Your task to perform on an android device: Go to Reddit.com Image 0: 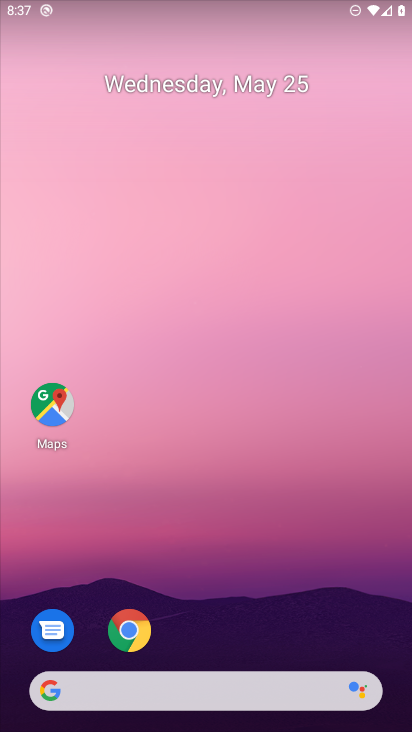
Step 0: drag from (168, 669) to (236, 419)
Your task to perform on an android device: Go to Reddit.com Image 1: 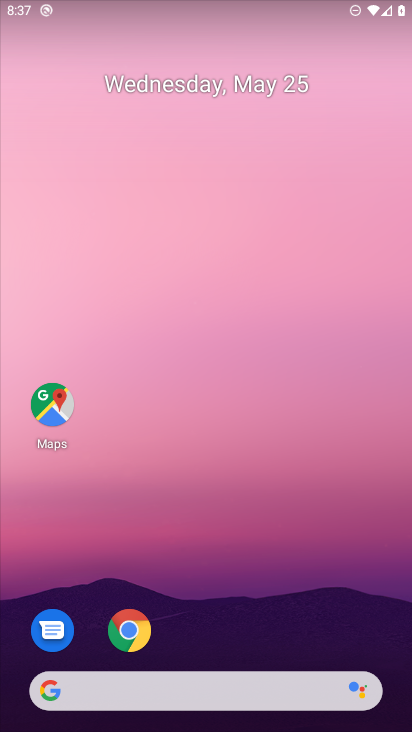
Step 1: drag from (225, 605) to (274, 415)
Your task to perform on an android device: Go to Reddit.com Image 2: 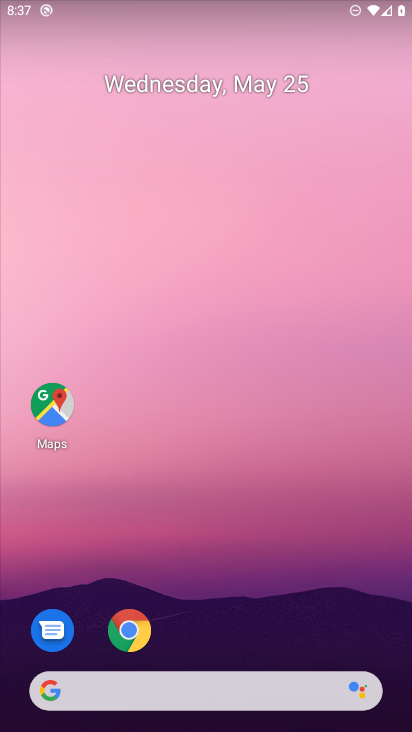
Step 2: drag from (260, 677) to (269, 139)
Your task to perform on an android device: Go to Reddit.com Image 3: 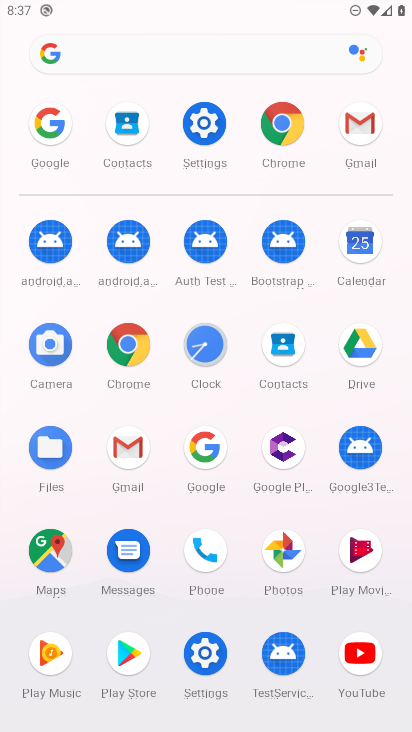
Step 3: click (209, 457)
Your task to perform on an android device: Go to Reddit.com Image 4: 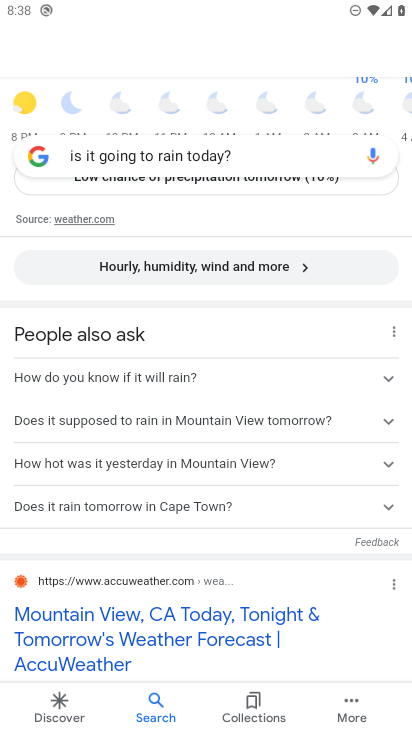
Step 4: click (249, 157)
Your task to perform on an android device: Go to Reddit.com Image 5: 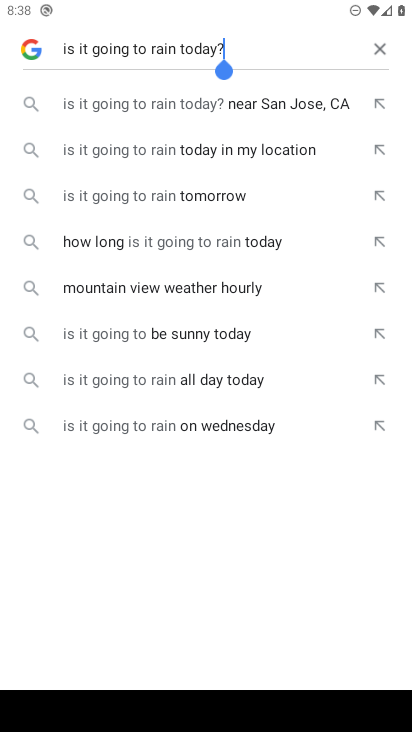
Step 5: click (365, 54)
Your task to perform on an android device: Go to Reddit.com Image 6: 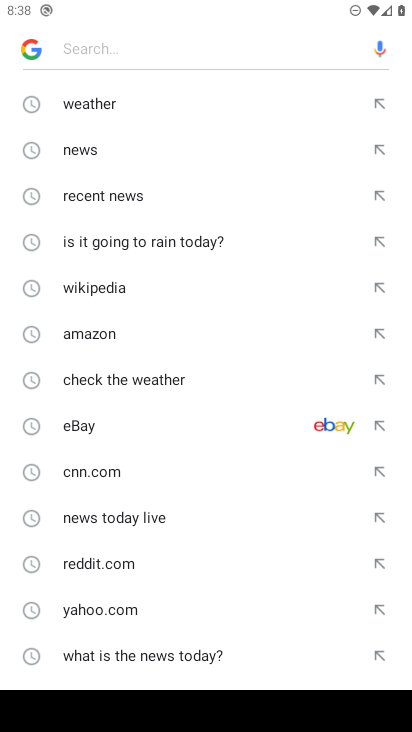
Step 6: click (115, 567)
Your task to perform on an android device: Go to Reddit.com Image 7: 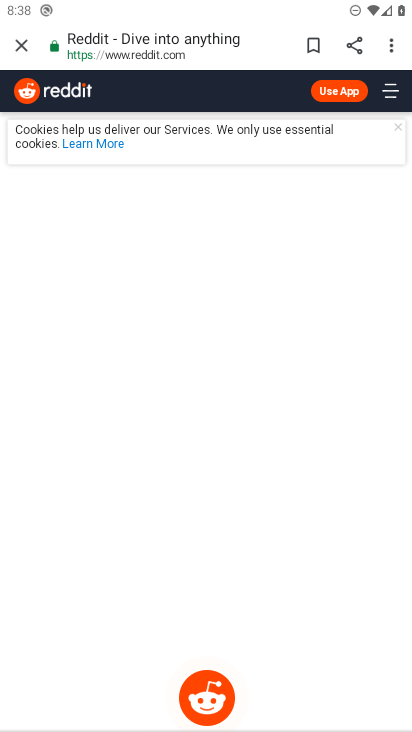
Step 7: task complete